Your task to perform on an android device: delete browsing data in the chrome app Image 0: 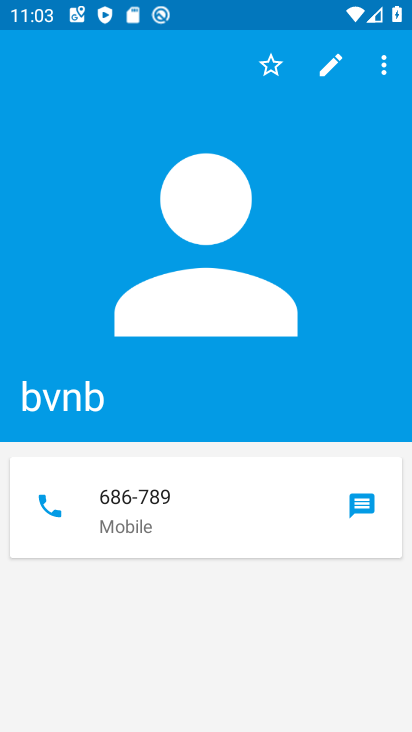
Step 0: press home button
Your task to perform on an android device: delete browsing data in the chrome app Image 1: 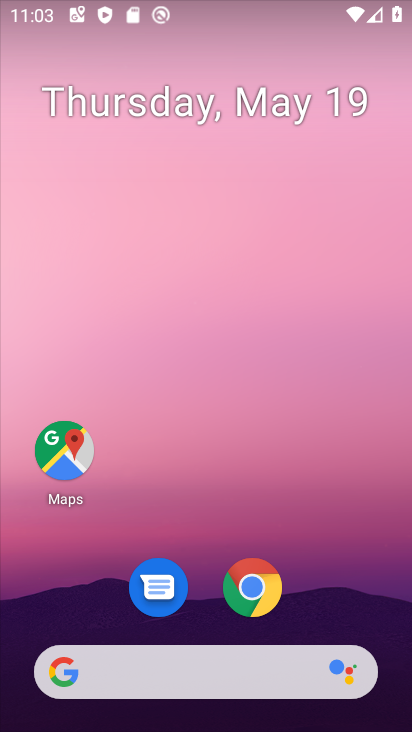
Step 1: click (287, 588)
Your task to perform on an android device: delete browsing data in the chrome app Image 2: 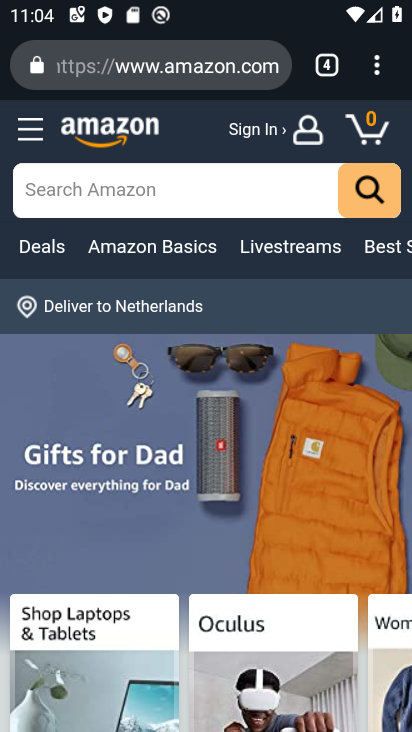
Step 2: drag from (379, 79) to (228, 368)
Your task to perform on an android device: delete browsing data in the chrome app Image 3: 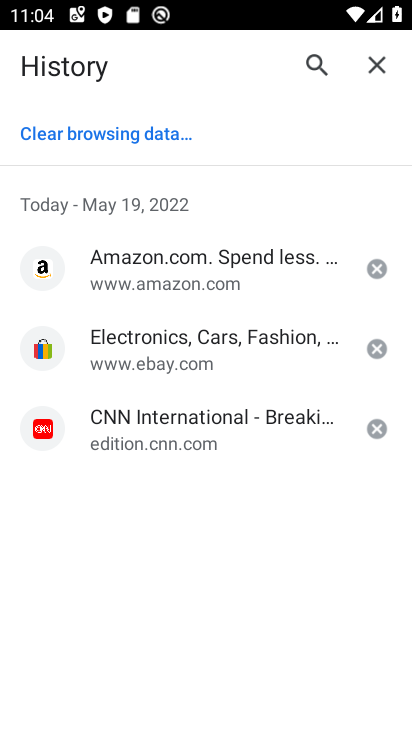
Step 3: click (71, 143)
Your task to perform on an android device: delete browsing data in the chrome app Image 4: 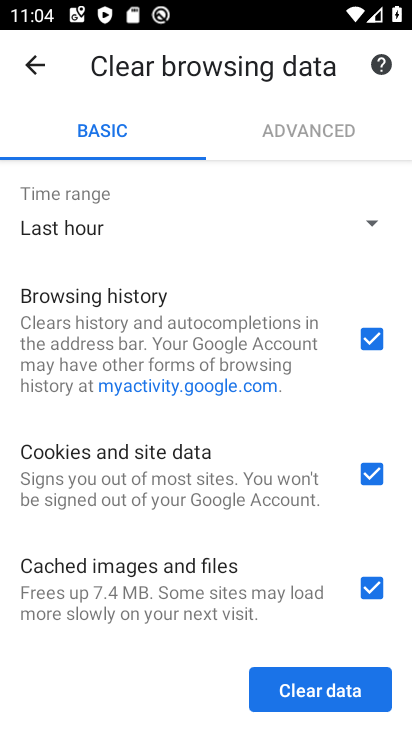
Step 4: click (327, 677)
Your task to perform on an android device: delete browsing data in the chrome app Image 5: 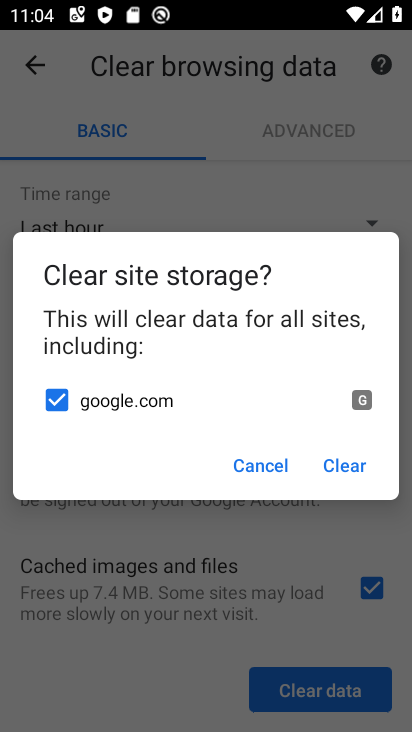
Step 5: click (340, 467)
Your task to perform on an android device: delete browsing data in the chrome app Image 6: 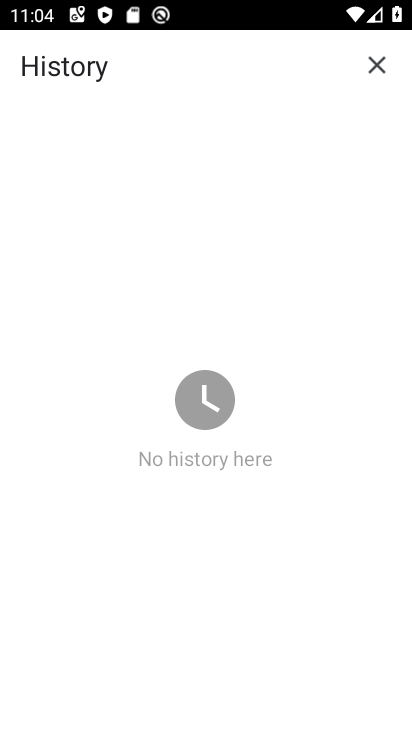
Step 6: task complete